Your task to perform on an android device: Go to wifi settings Image 0: 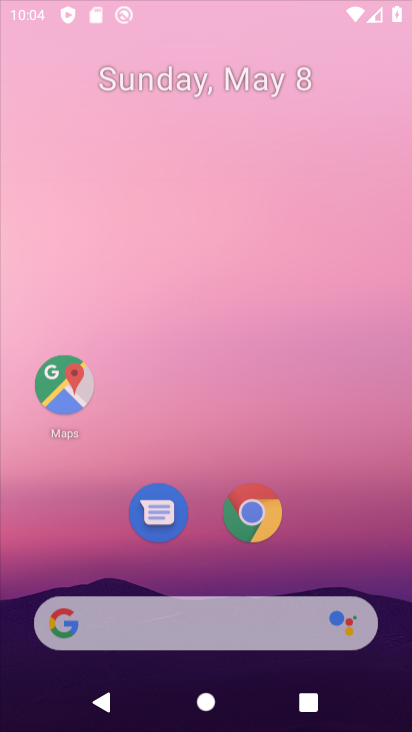
Step 0: drag from (335, 550) to (342, 256)
Your task to perform on an android device: Go to wifi settings Image 1: 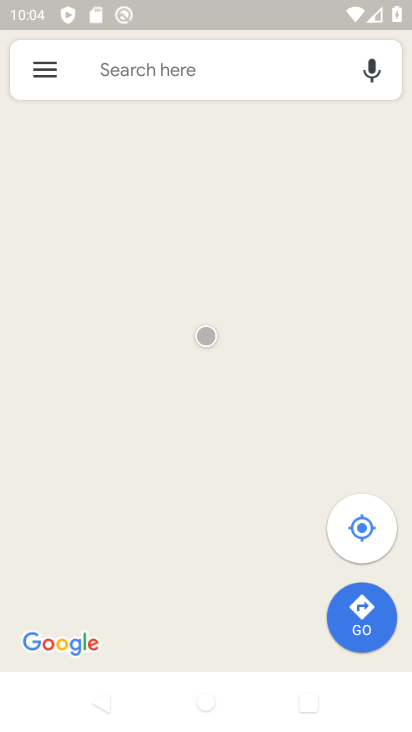
Step 1: press home button
Your task to perform on an android device: Go to wifi settings Image 2: 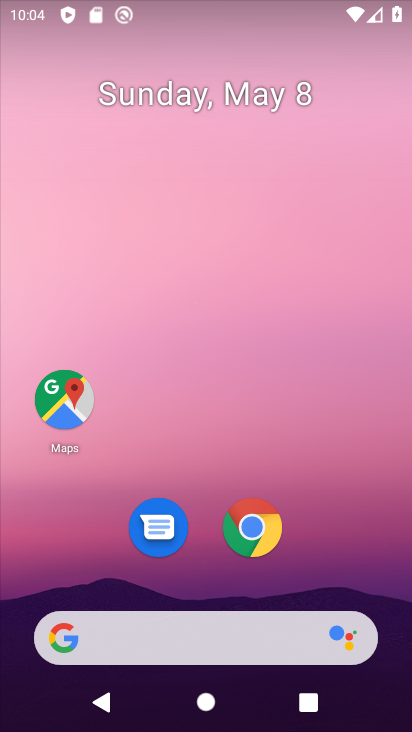
Step 2: drag from (383, 427) to (405, 2)
Your task to perform on an android device: Go to wifi settings Image 3: 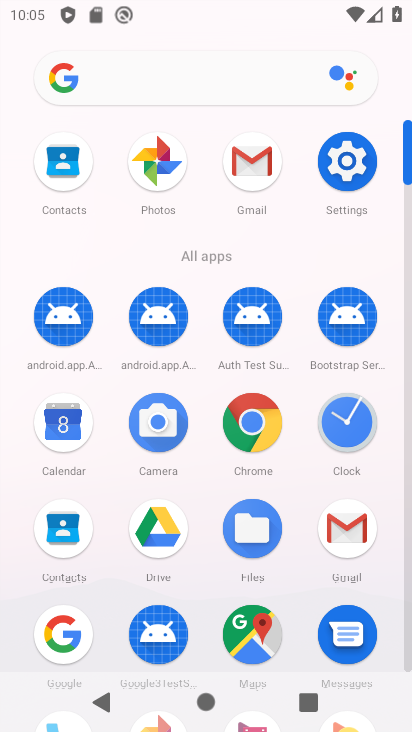
Step 3: click (361, 185)
Your task to perform on an android device: Go to wifi settings Image 4: 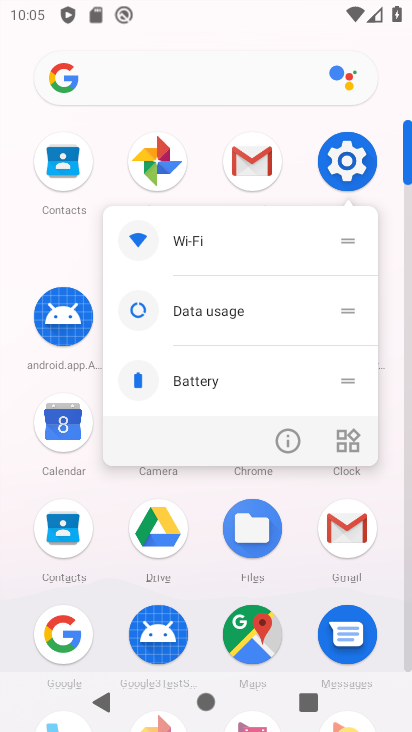
Step 4: click (361, 177)
Your task to perform on an android device: Go to wifi settings Image 5: 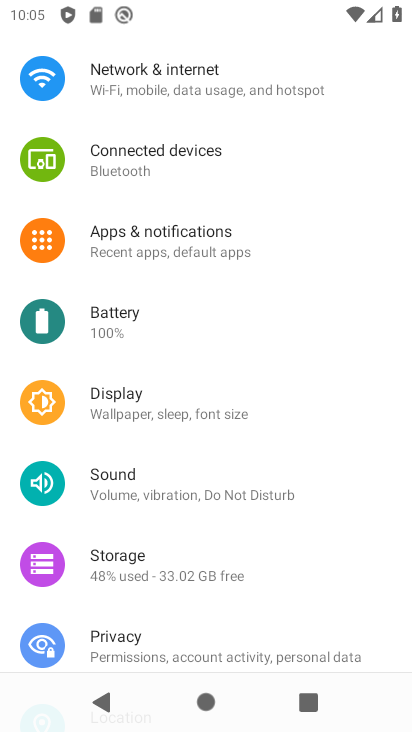
Step 5: click (244, 86)
Your task to perform on an android device: Go to wifi settings Image 6: 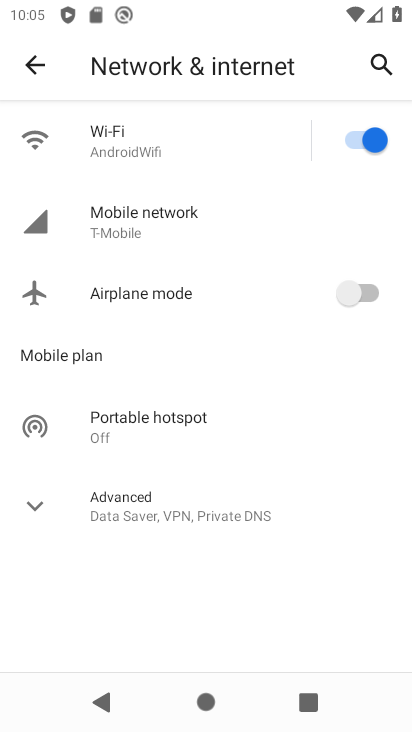
Step 6: click (203, 150)
Your task to perform on an android device: Go to wifi settings Image 7: 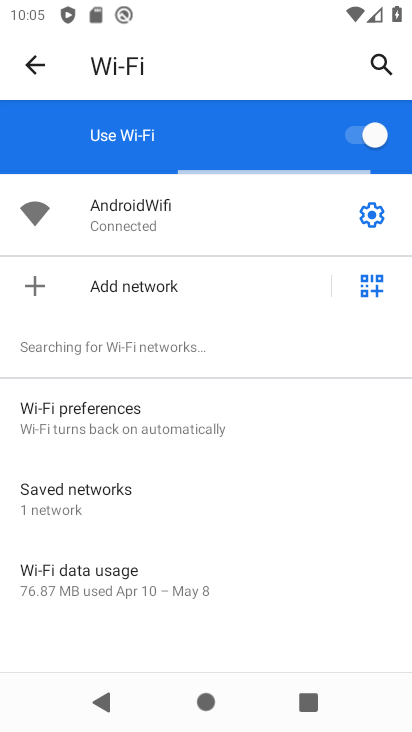
Step 7: task complete